Your task to perform on an android device: Open the calendar app, open the side menu, and click the "Day" option Image 0: 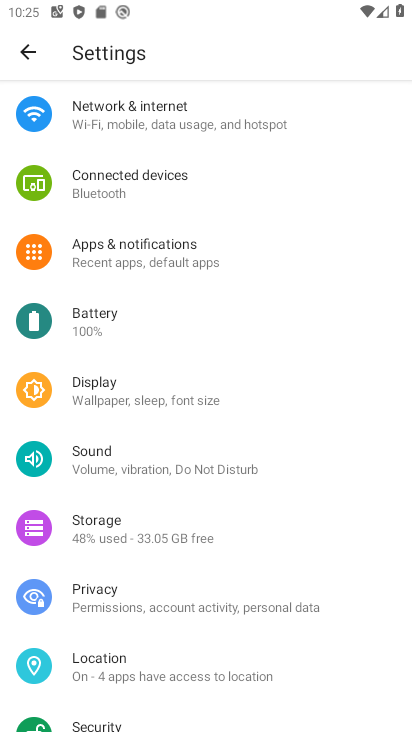
Step 0: press home button
Your task to perform on an android device: Open the calendar app, open the side menu, and click the "Day" option Image 1: 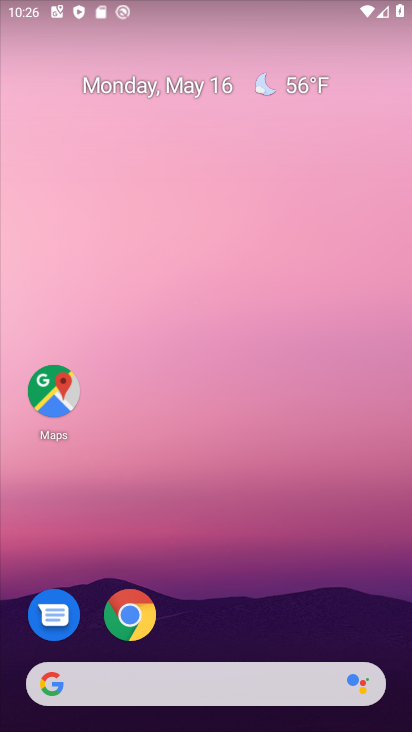
Step 1: drag from (210, 688) to (228, 239)
Your task to perform on an android device: Open the calendar app, open the side menu, and click the "Day" option Image 2: 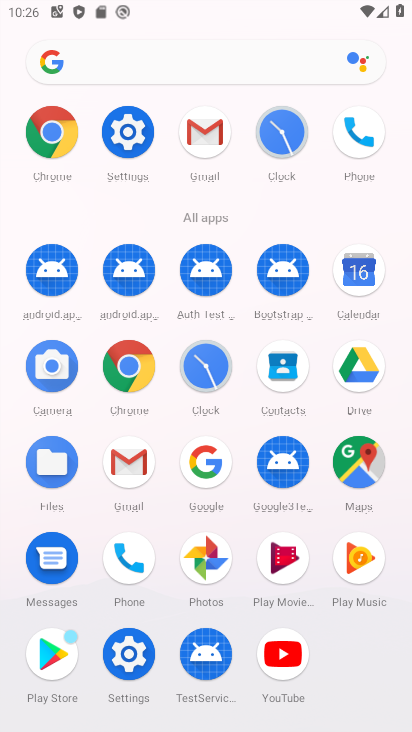
Step 2: click (337, 283)
Your task to perform on an android device: Open the calendar app, open the side menu, and click the "Day" option Image 3: 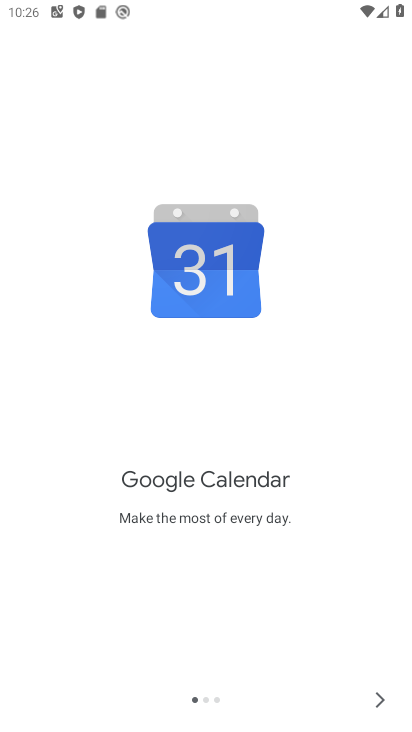
Step 3: click (376, 691)
Your task to perform on an android device: Open the calendar app, open the side menu, and click the "Day" option Image 4: 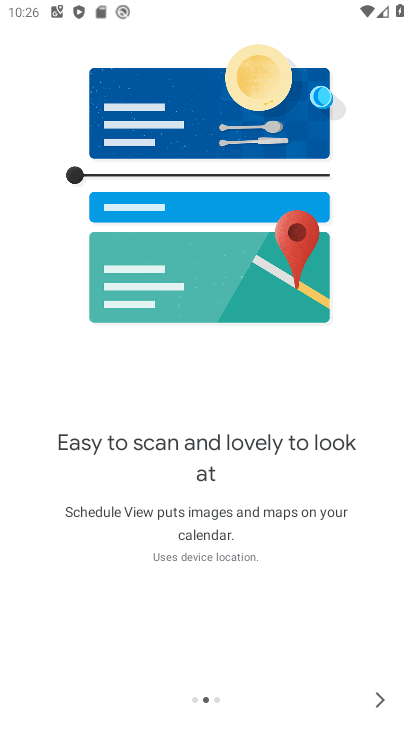
Step 4: click (382, 699)
Your task to perform on an android device: Open the calendar app, open the side menu, and click the "Day" option Image 5: 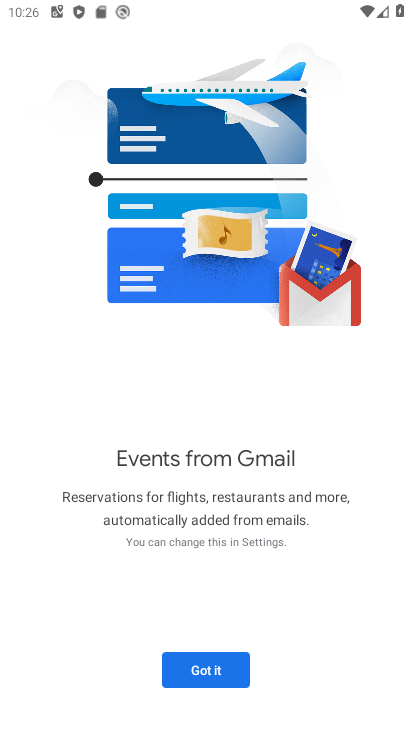
Step 5: click (209, 676)
Your task to perform on an android device: Open the calendar app, open the side menu, and click the "Day" option Image 6: 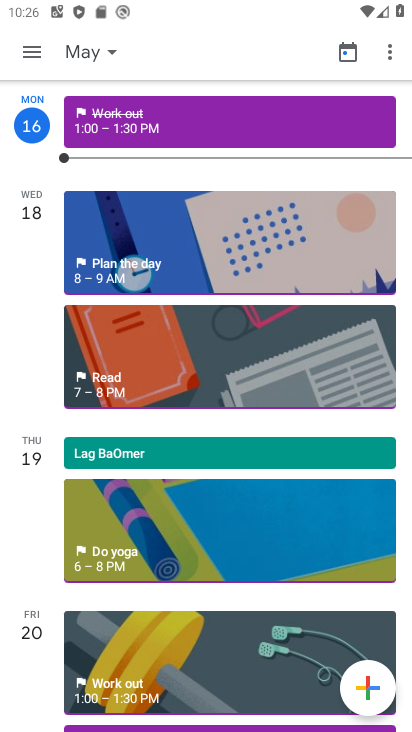
Step 6: click (7, 49)
Your task to perform on an android device: Open the calendar app, open the side menu, and click the "Day" option Image 7: 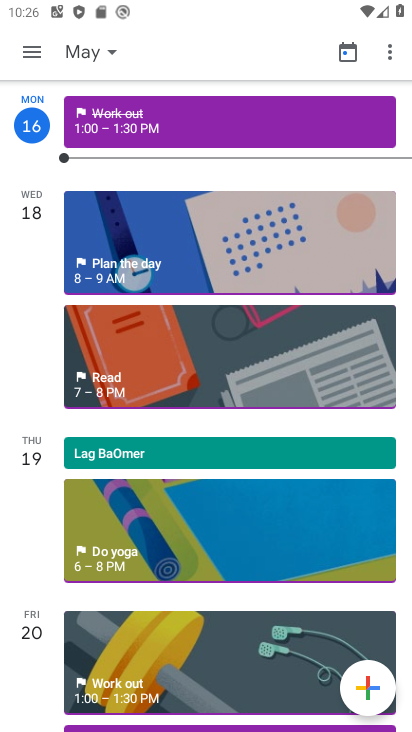
Step 7: click (27, 53)
Your task to perform on an android device: Open the calendar app, open the side menu, and click the "Day" option Image 8: 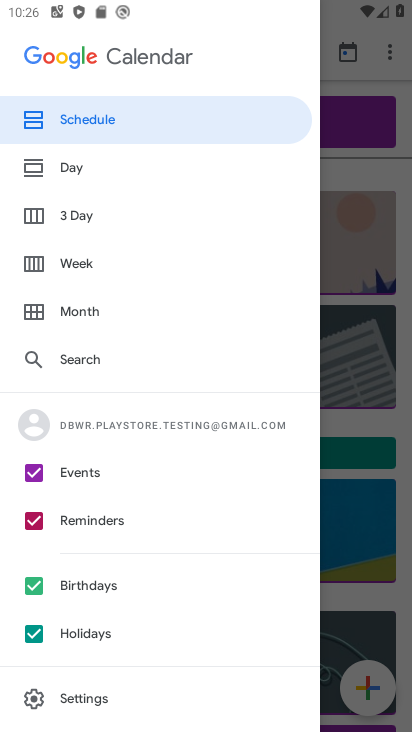
Step 8: click (94, 168)
Your task to perform on an android device: Open the calendar app, open the side menu, and click the "Day" option Image 9: 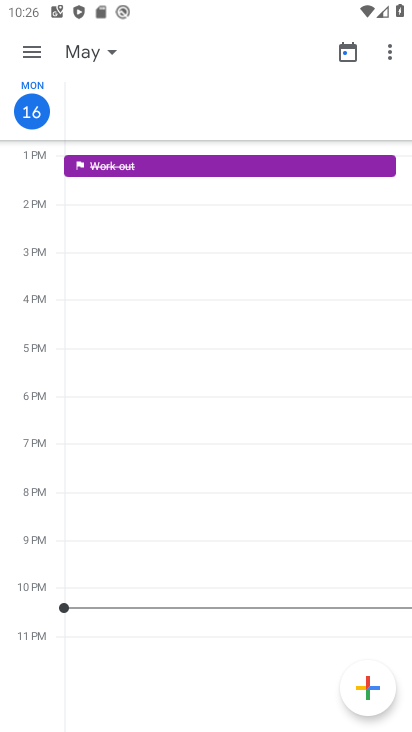
Step 9: task complete